Your task to perform on an android device: change notifications settings Image 0: 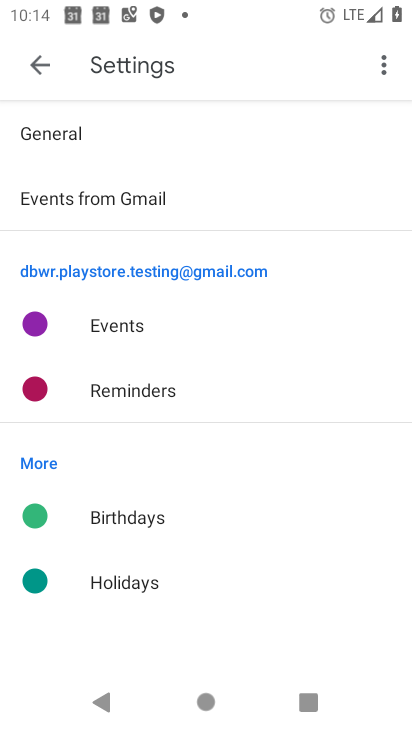
Step 0: press home button
Your task to perform on an android device: change notifications settings Image 1: 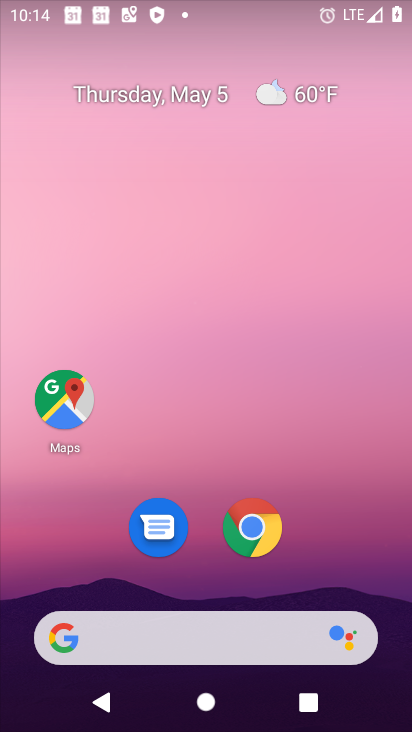
Step 1: drag from (269, 715) to (251, 28)
Your task to perform on an android device: change notifications settings Image 2: 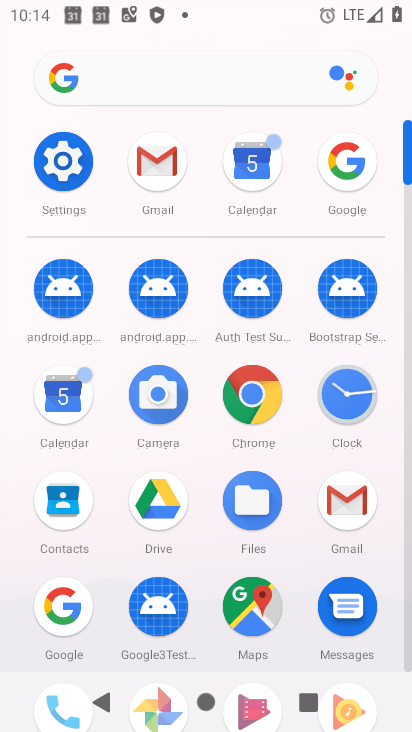
Step 2: click (48, 156)
Your task to perform on an android device: change notifications settings Image 3: 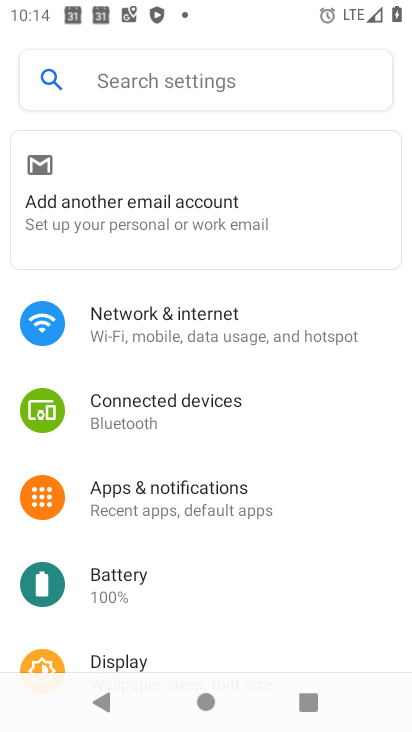
Step 3: click (202, 494)
Your task to perform on an android device: change notifications settings Image 4: 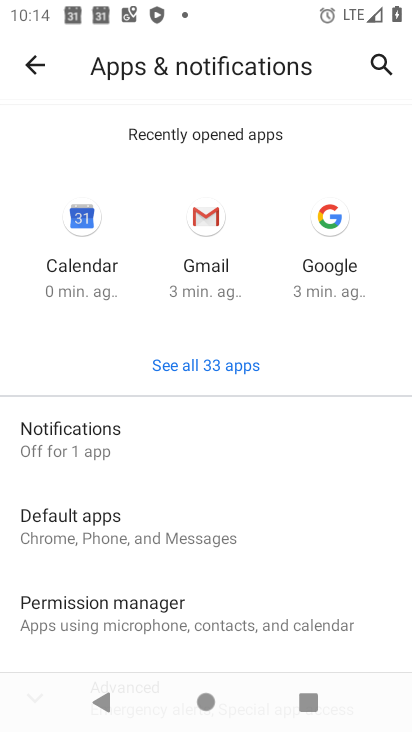
Step 4: task complete